Your task to perform on an android device: Open Google Chrome Image 0: 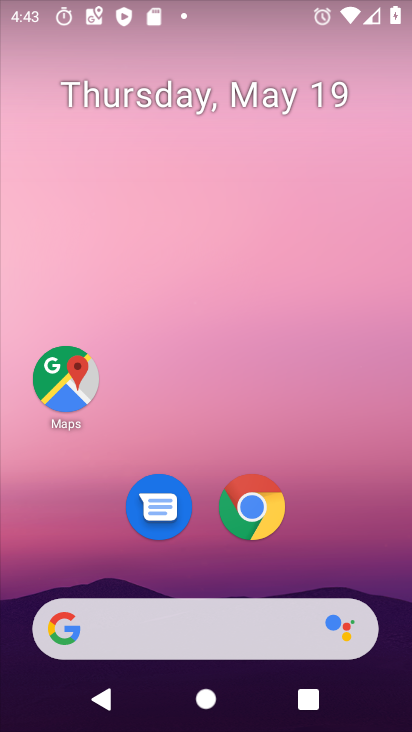
Step 0: click (256, 533)
Your task to perform on an android device: Open Google Chrome Image 1: 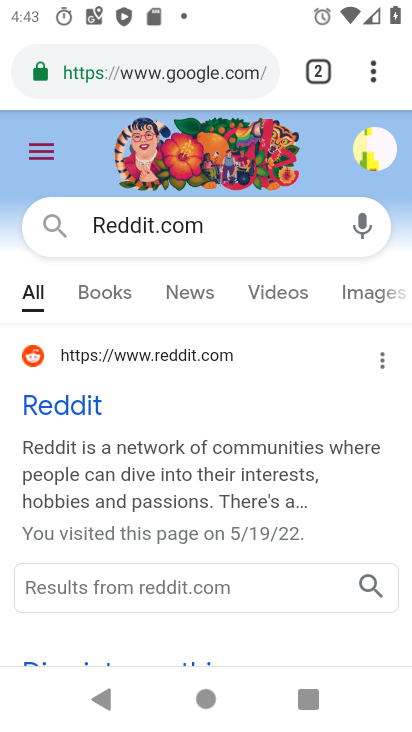
Step 1: task complete